Your task to perform on an android device: check battery use Image 0: 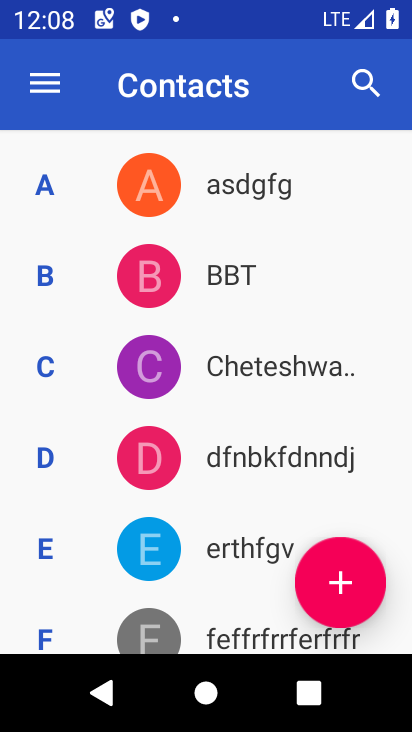
Step 0: press home button
Your task to perform on an android device: check battery use Image 1: 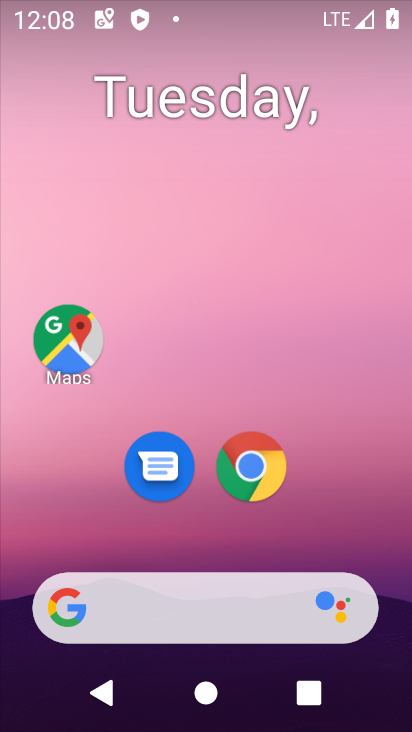
Step 1: drag from (198, 602) to (191, 213)
Your task to perform on an android device: check battery use Image 2: 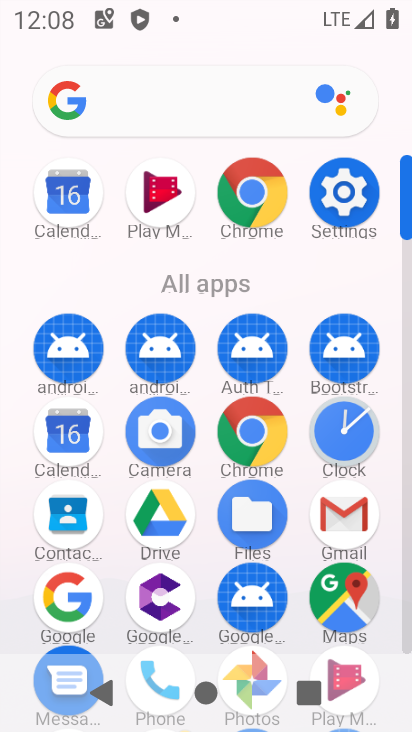
Step 2: click (354, 190)
Your task to perform on an android device: check battery use Image 3: 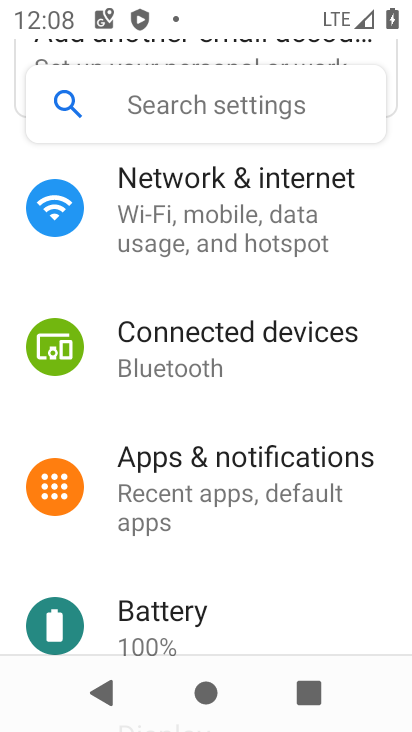
Step 3: click (171, 607)
Your task to perform on an android device: check battery use Image 4: 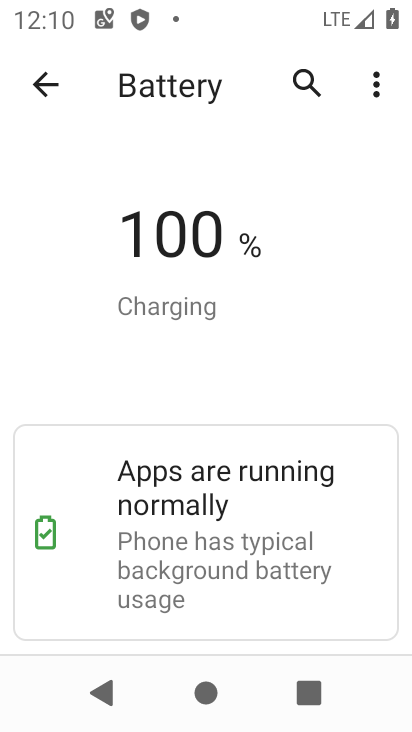
Step 4: task complete